Your task to perform on an android device: turn off notifications settings in the gmail app Image 0: 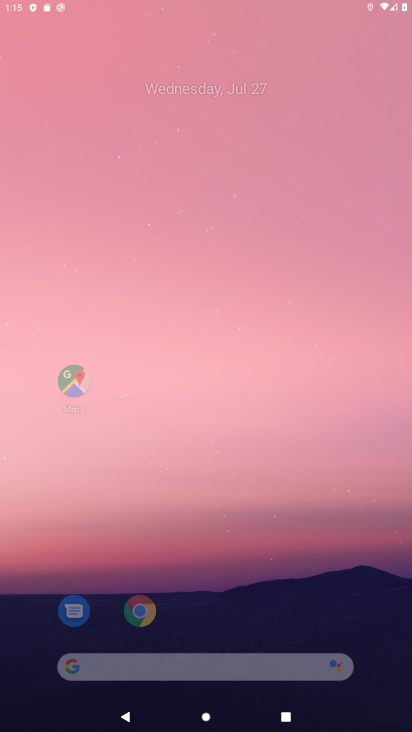
Step 0: press home button
Your task to perform on an android device: turn off notifications settings in the gmail app Image 1: 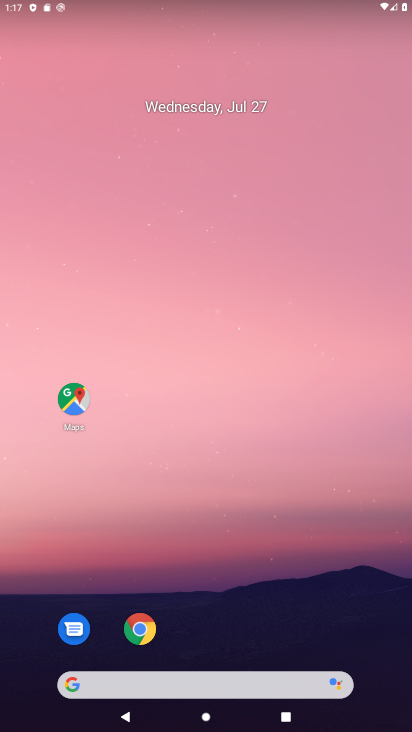
Step 1: drag from (255, 637) to (212, 0)
Your task to perform on an android device: turn off notifications settings in the gmail app Image 2: 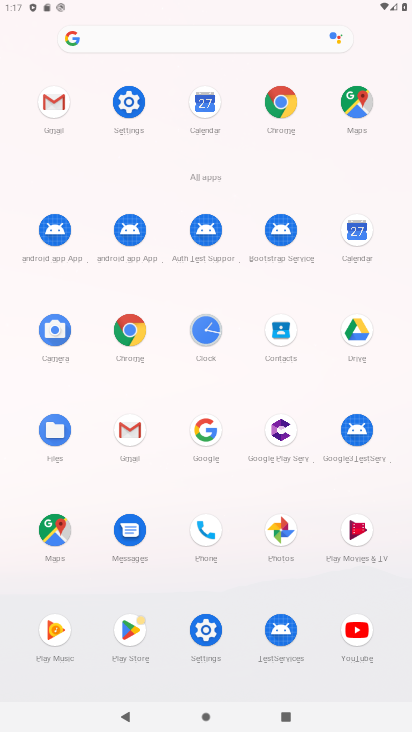
Step 2: click (56, 113)
Your task to perform on an android device: turn off notifications settings in the gmail app Image 3: 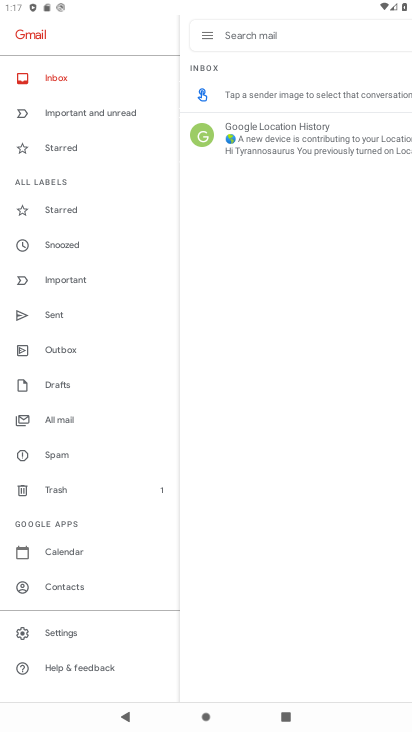
Step 3: click (74, 635)
Your task to perform on an android device: turn off notifications settings in the gmail app Image 4: 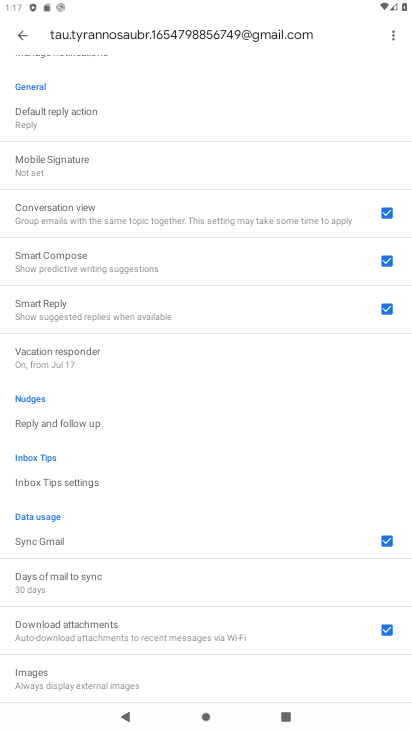
Step 4: drag from (183, 118) to (275, 635)
Your task to perform on an android device: turn off notifications settings in the gmail app Image 5: 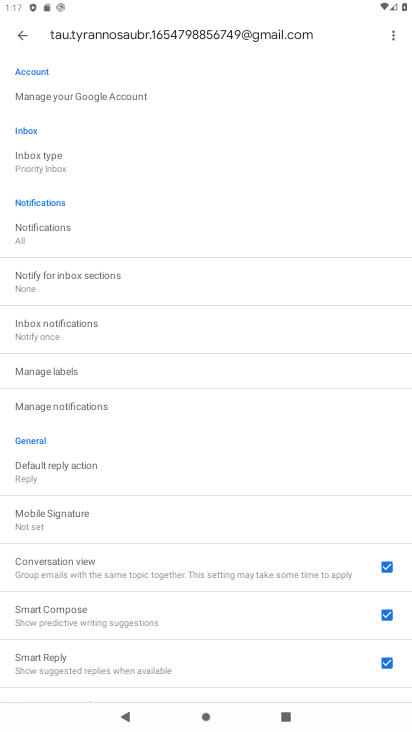
Step 5: click (62, 412)
Your task to perform on an android device: turn off notifications settings in the gmail app Image 6: 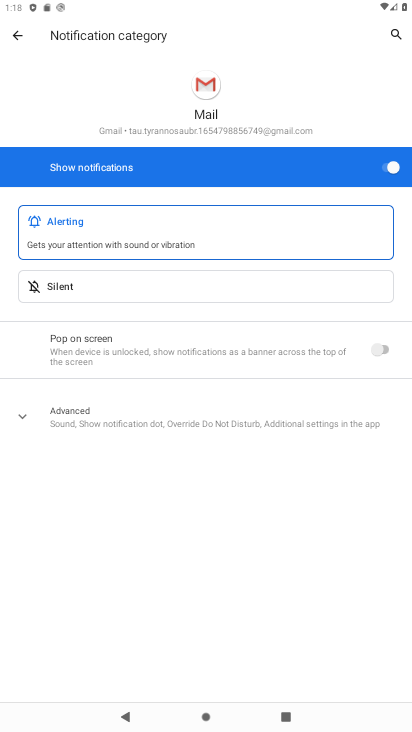
Step 6: click (392, 174)
Your task to perform on an android device: turn off notifications settings in the gmail app Image 7: 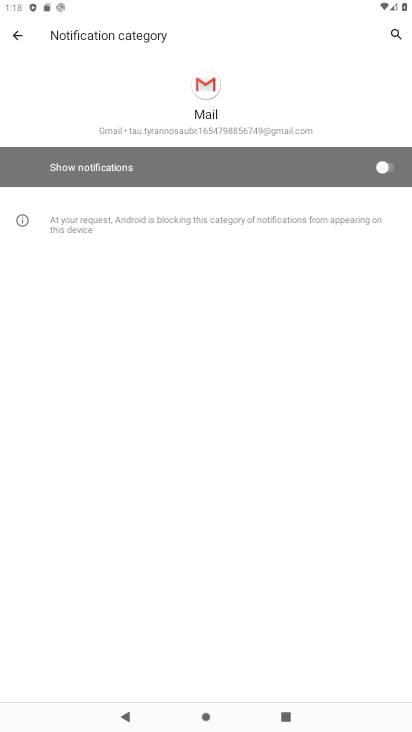
Step 7: task complete